Your task to perform on an android device: Go to battery settings Image 0: 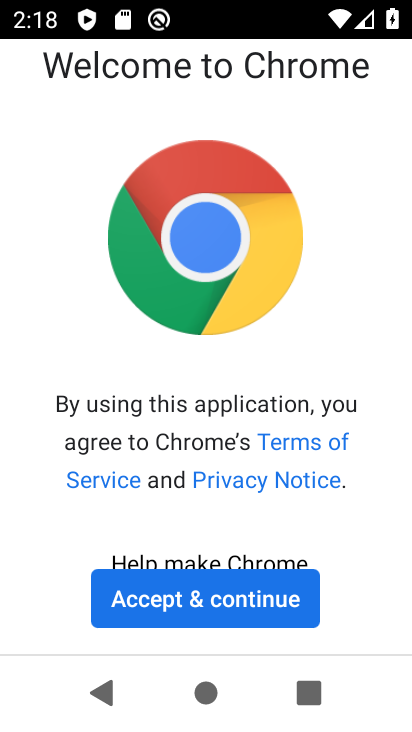
Step 0: press home button
Your task to perform on an android device: Go to battery settings Image 1: 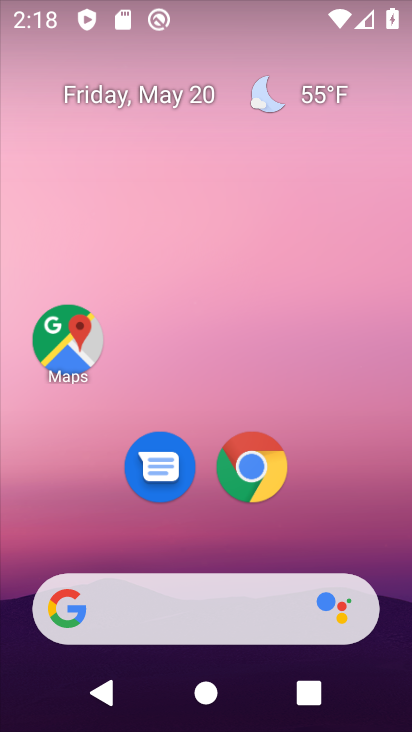
Step 1: drag from (220, 540) to (299, 41)
Your task to perform on an android device: Go to battery settings Image 2: 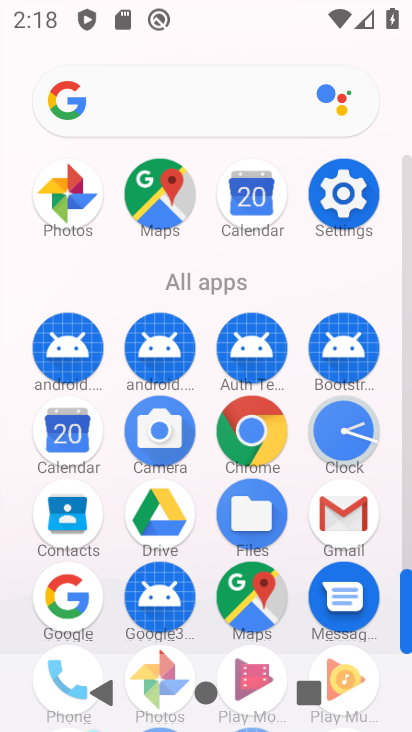
Step 2: click (348, 189)
Your task to perform on an android device: Go to battery settings Image 3: 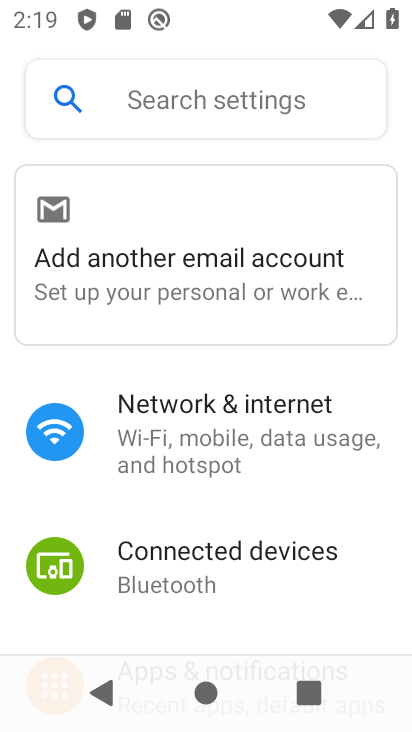
Step 3: drag from (229, 591) to (223, 220)
Your task to perform on an android device: Go to battery settings Image 4: 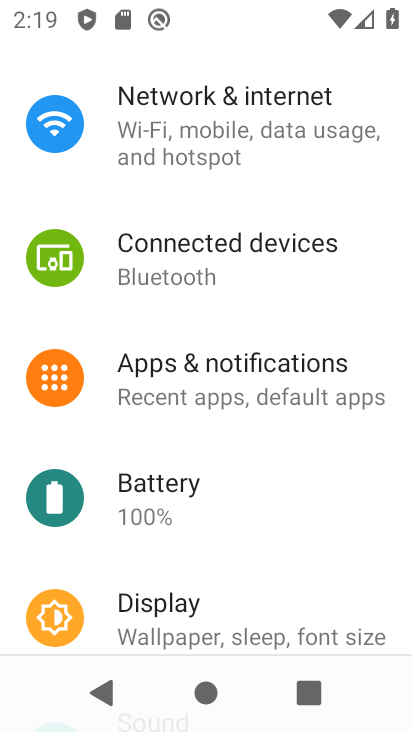
Step 4: click (217, 501)
Your task to perform on an android device: Go to battery settings Image 5: 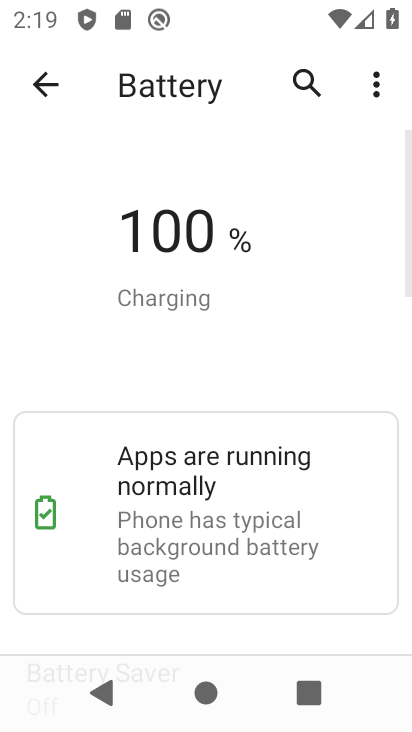
Step 5: task complete